Your task to perform on an android device: turn on location history Image 0: 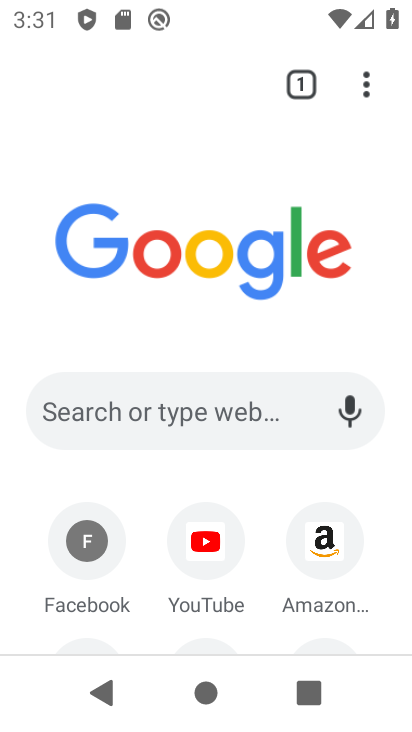
Step 0: press home button
Your task to perform on an android device: turn on location history Image 1: 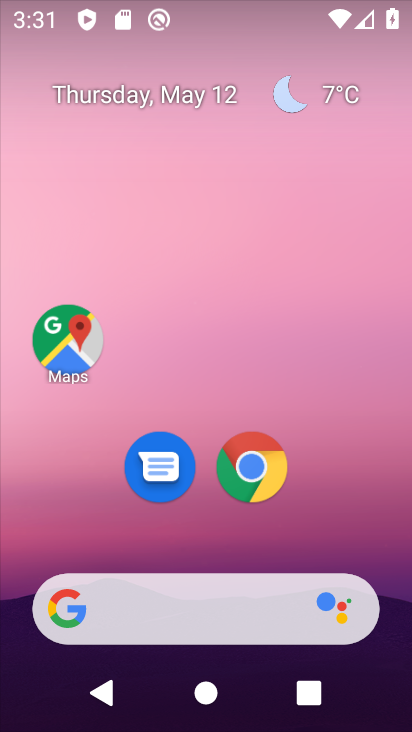
Step 1: drag from (142, 571) to (233, 92)
Your task to perform on an android device: turn on location history Image 2: 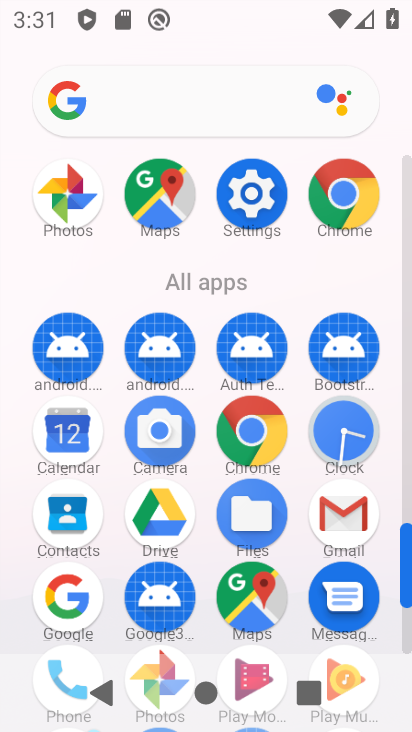
Step 2: drag from (152, 648) to (211, 441)
Your task to perform on an android device: turn on location history Image 3: 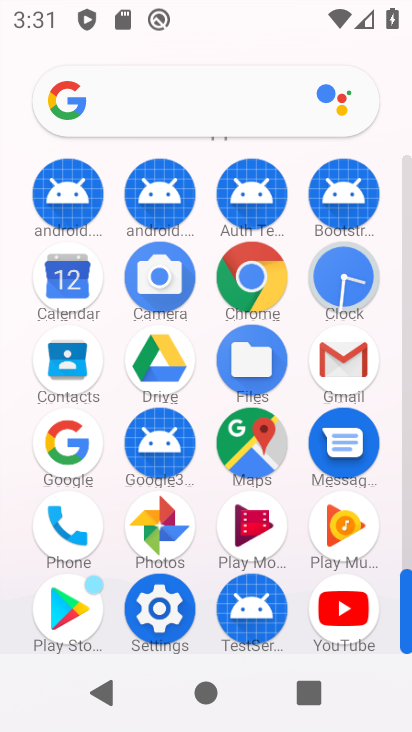
Step 3: click (173, 621)
Your task to perform on an android device: turn on location history Image 4: 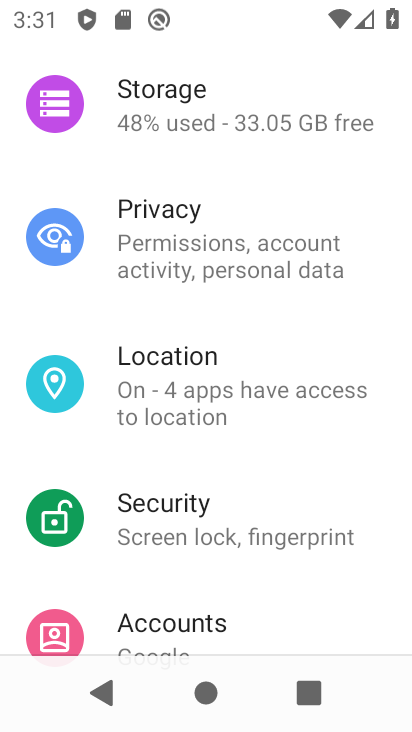
Step 4: drag from (288, 246) to (295, 391)
Your task to perform on an android device: turn on location history Image 5: 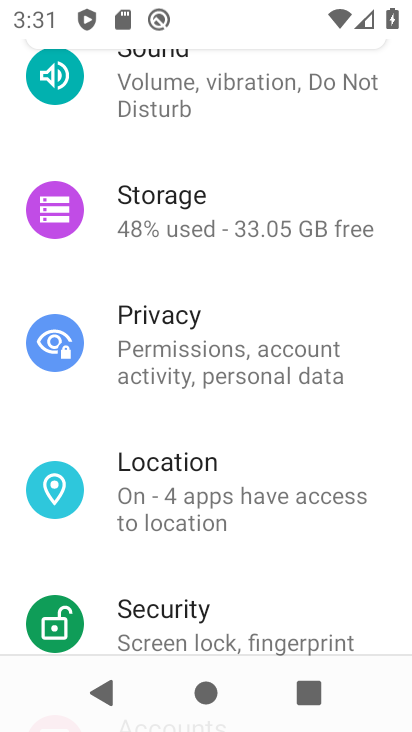
Step 5: click (165, 498)
Your task to perform on an android device: turn on location history Image 6: 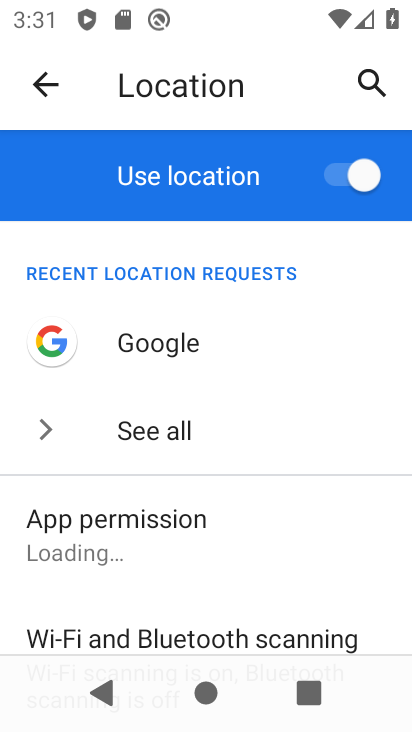
Step 6: drag from (208, 624) to (297, 347)
Your task to perform on an android device: turn on location history Image 7: 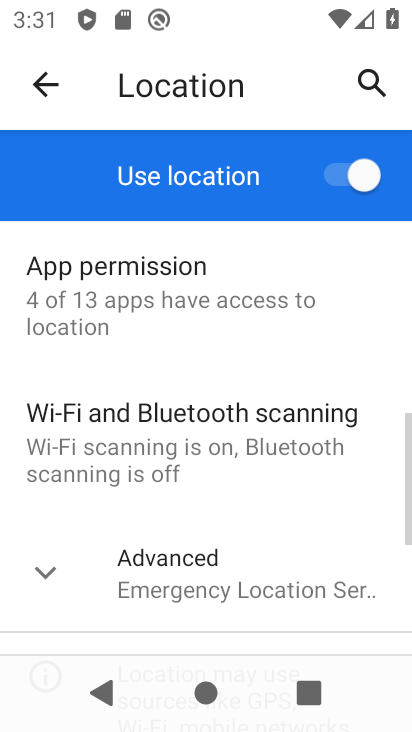
Step 7: click (258, 575)
Your task to perform on an android device: turn on location history Image 8: 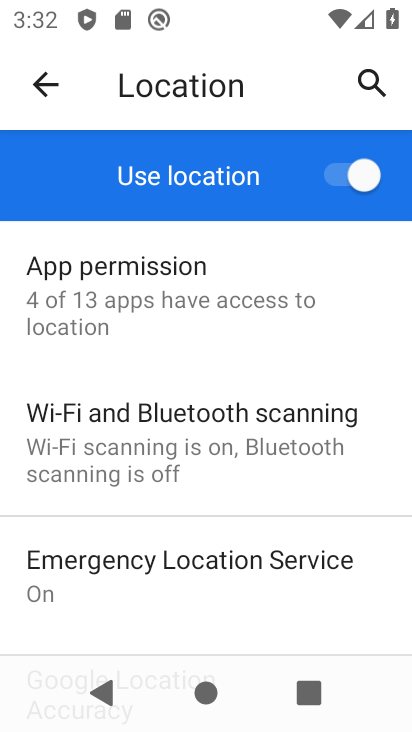
Step 8: drag from (224, 479) to (345, 158)
Your task to perform on an android device: turn on location history Image 9: 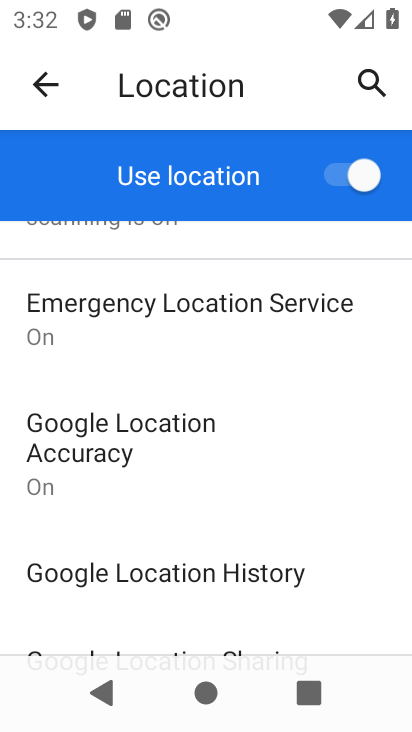
Step 9: click (227, 566)
Your task to perform on an android device: turn on location history Image 10: 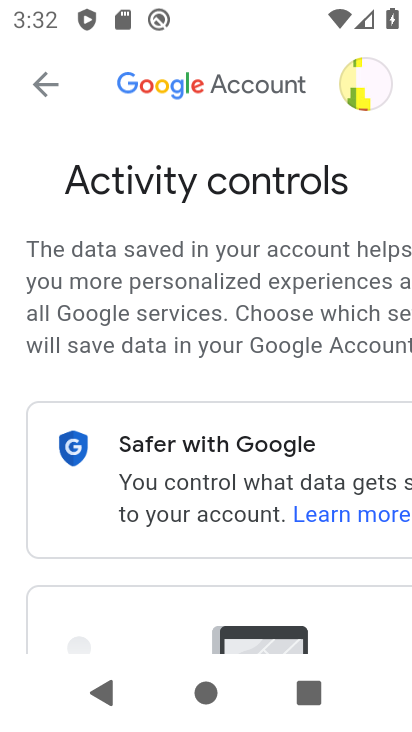
Step 10: drag from (193, 611) to (286, 124)
Your task to perform on an android device: turn on location history Image 11: 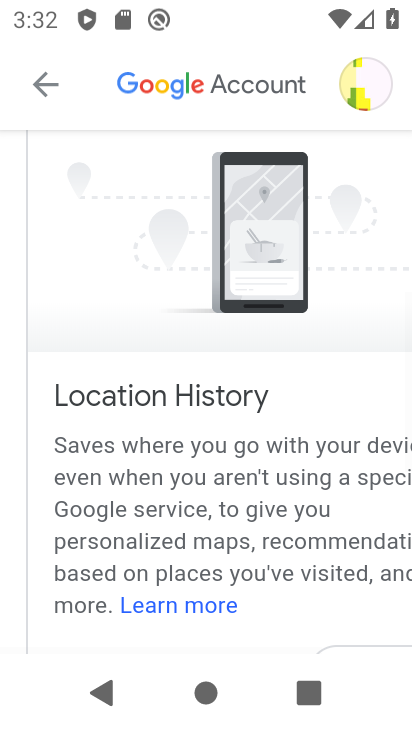
Step 11: drag from (221, 561) to (299, 238)
Your task to perform on an android device: turn on location history Image 12: 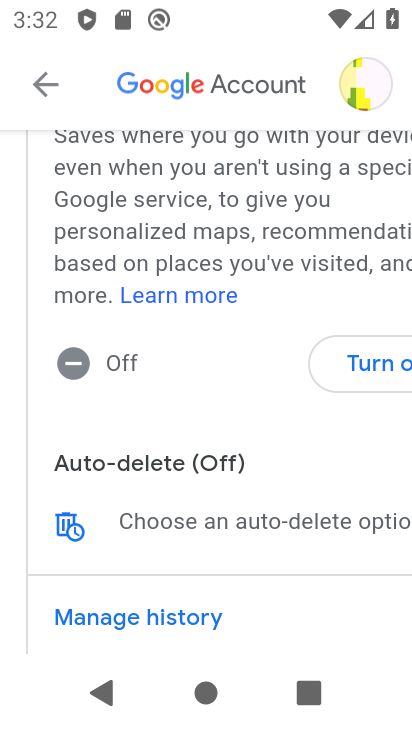
Step 12: click (357, 368)
Your task to perform on an android device: turn on location history Image 13: 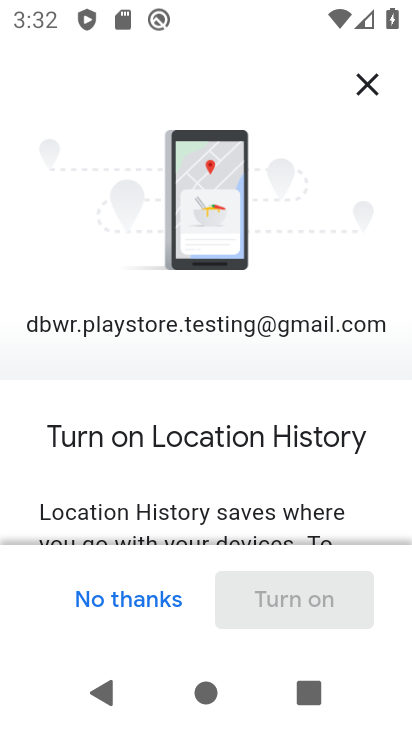
Step 13: drag from (296, 495) to (389, 52)
Your task to perform on an android device: turn on location history Image 14: 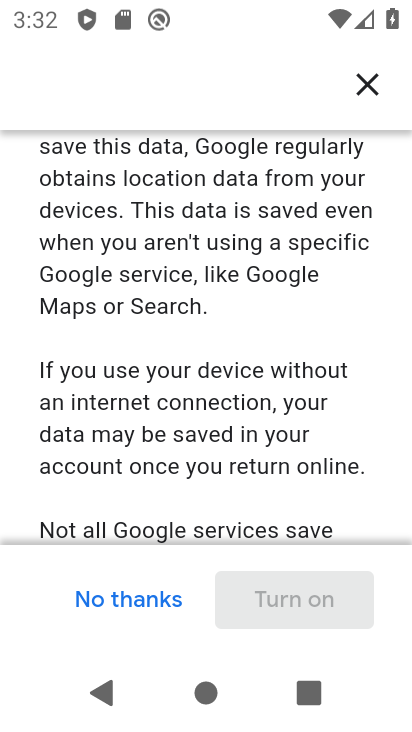
Step 14: drag from (261, 510) to (341, 106)
Your task to perform on an android device: turn on location history Image 15: 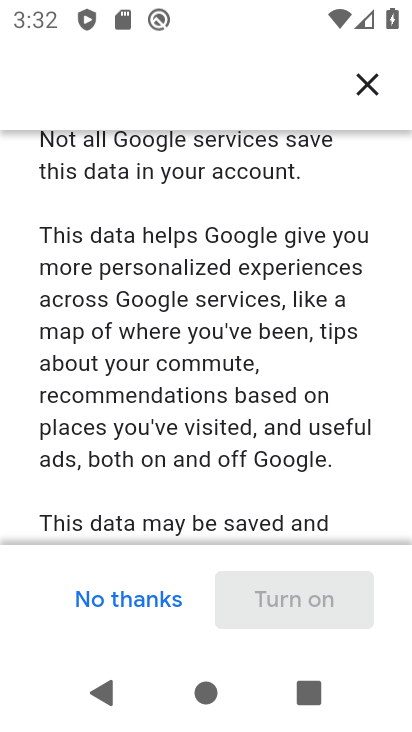
Step 15: drag from (235, 507) to (321, 0)
Your task to perform on an android device: turn on location history Image 16: 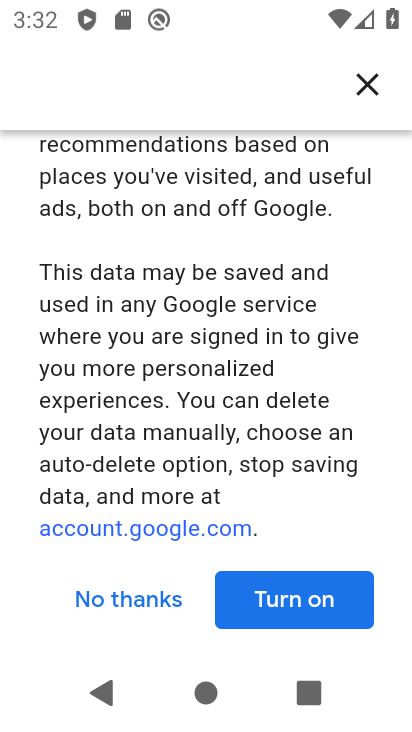
Step 16: click (297, 590)
Your task to perform on an android device: turn on location history Image 17: 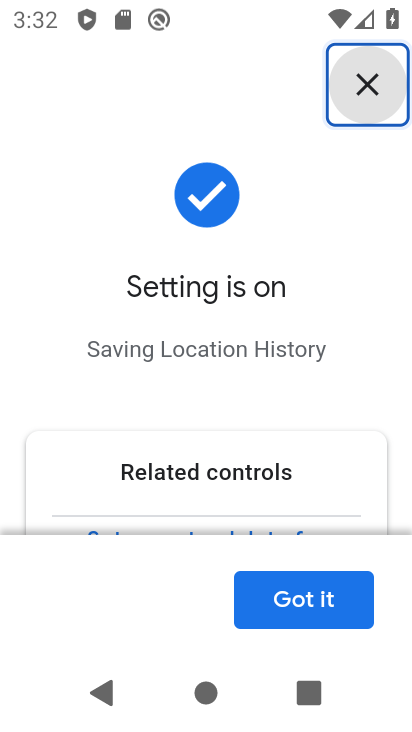
Step 17: click (320, 618)
Your task to perform on an android device: turn on location history Image 18: 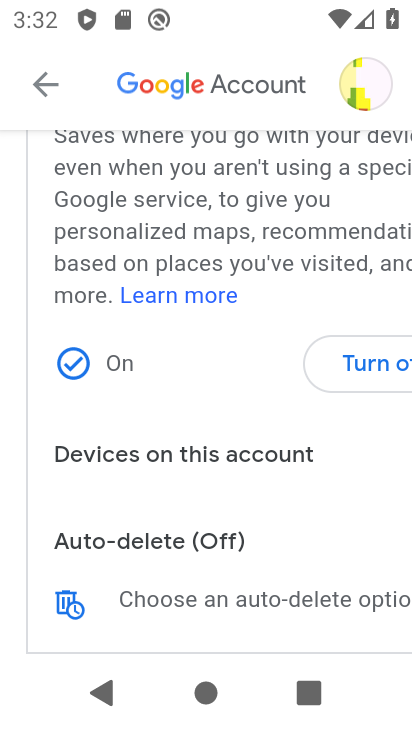
Step 18: task complete